Your task to perform on an android device: Do I have any events today? Image 0: 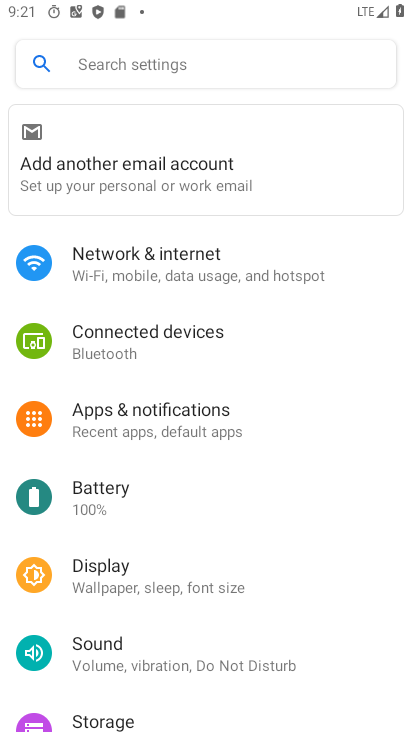
Step 0: press back button
Your task to perform on an android device: Do I have any events today? Image 1: 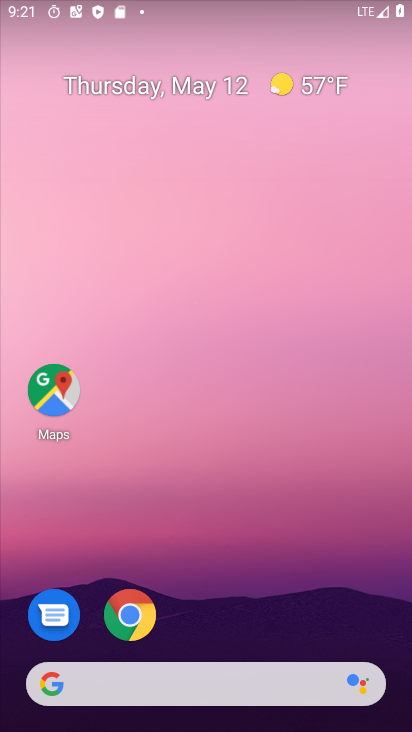
Step 1: drag from (266, 578) to (241, 82)
Your task to perform on an android device: Do I have any events today? Image 2: 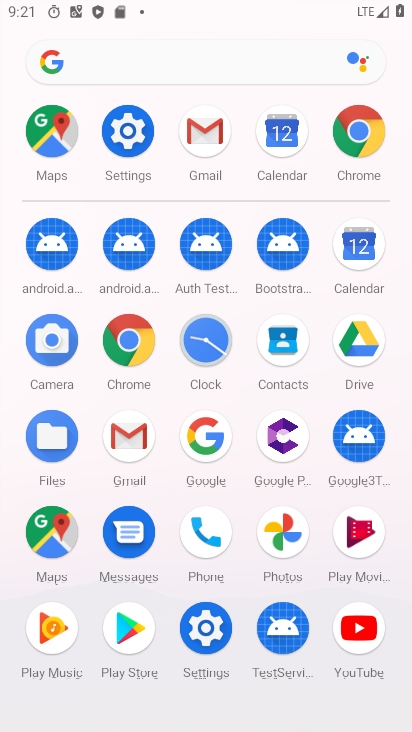
Step 2: drag from (2, 525) to (9, 266)
Your task to perform on an android device: Do I have any events today? Image 3: 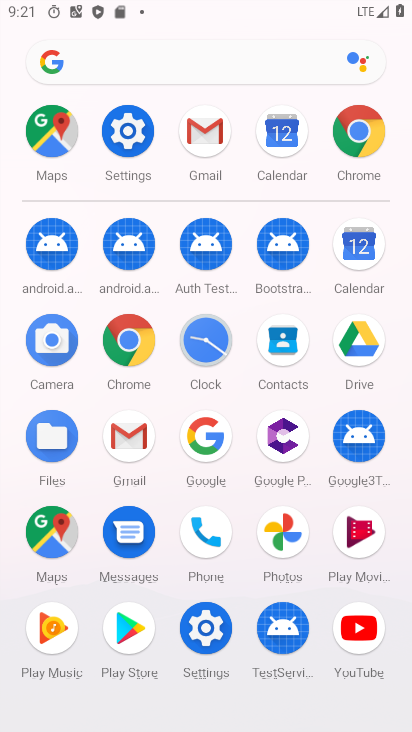
Step 3: click (363, 235)
Your task to perform on an android device: Do I have any events today? Image 4: 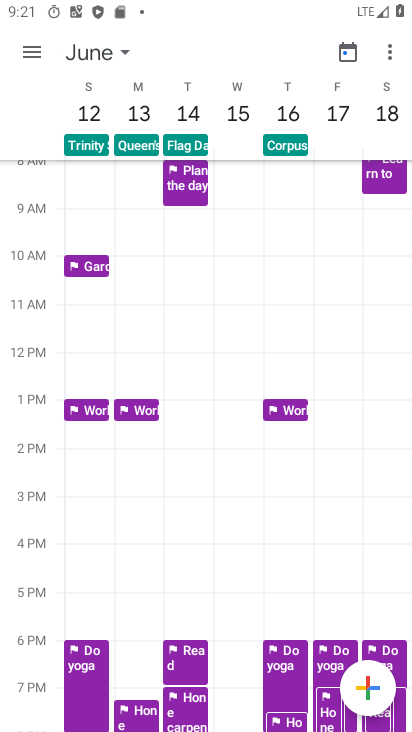
Step 4: click (24, 49)
Your task to perform on an android device: Do I have any events today? Image 5: 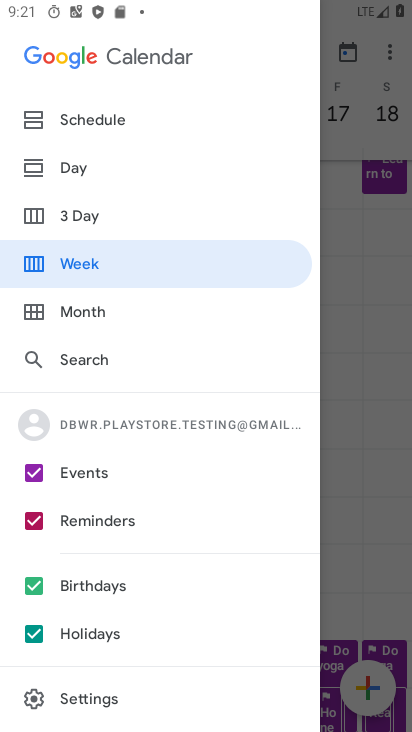
Step 5: click (108, 115)
Your task to perform on an android device: Do I have any events today? Image 6: 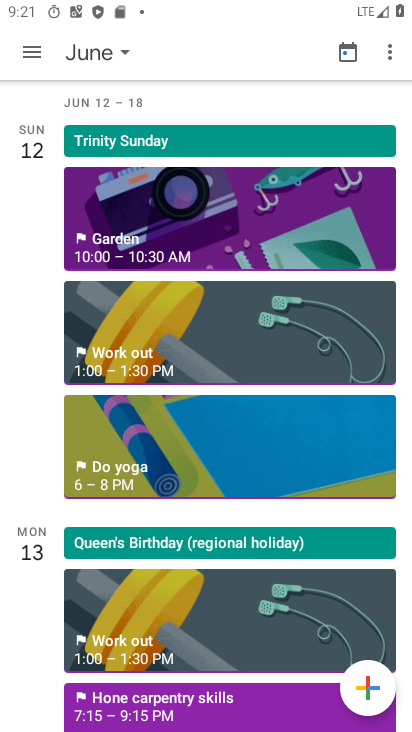
Step 6: task complete